Your task to perform on an android device: Search for Mexican restaurants on Maps Image 0: 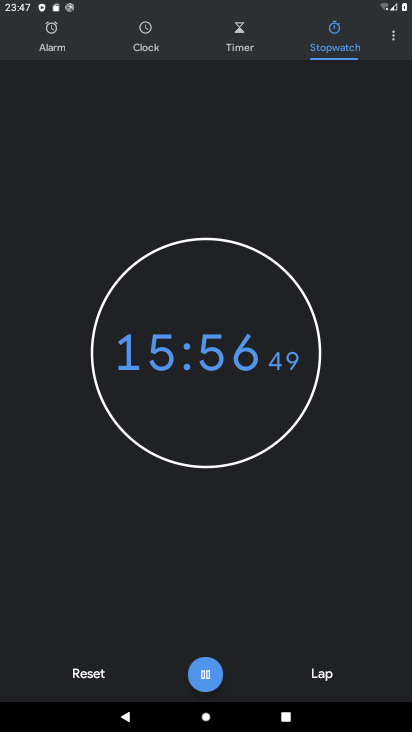
Step 0: press home button
Your task to perform on an android device: Search for Mexican restaurants on Maps Image 1: 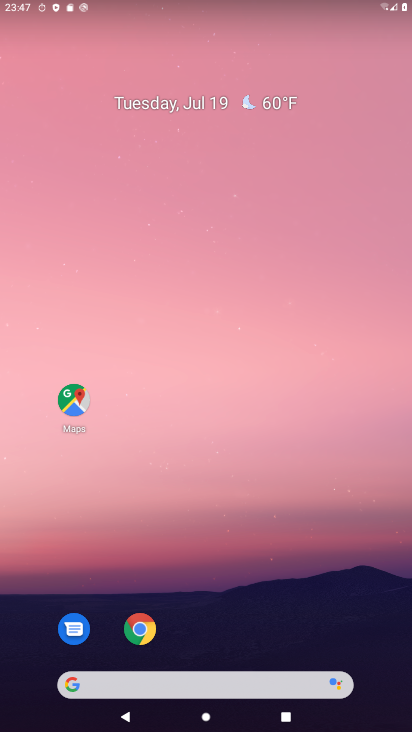
Step 1: click (67, 401)
Your task to perform on an android device: Search for Mexican restaurants on Maps Image 2: 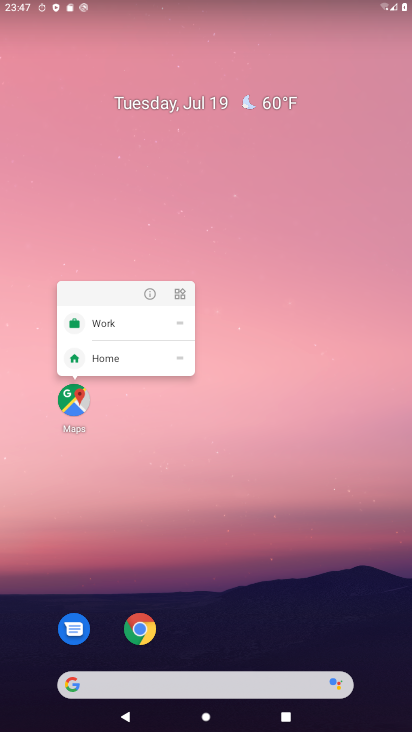
Step 2: click (74, 402)
Your task to perform on an android device: Search for Mexican restaurants on Maps Image 3: 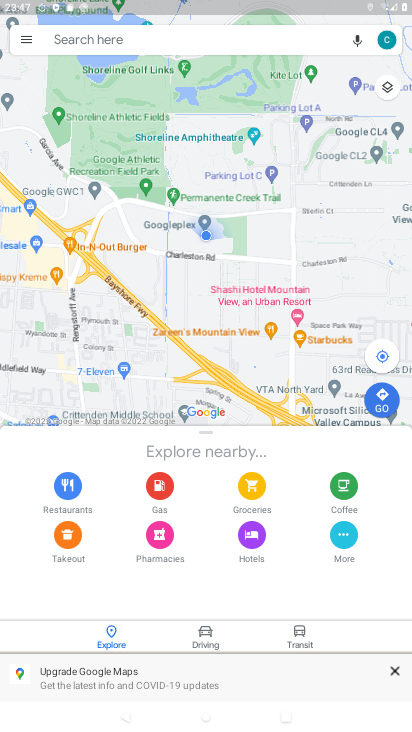
Step 3: click (143, 30)
Your task to perform on an android device: Search for Mexican restaurants on Maps Image 4: 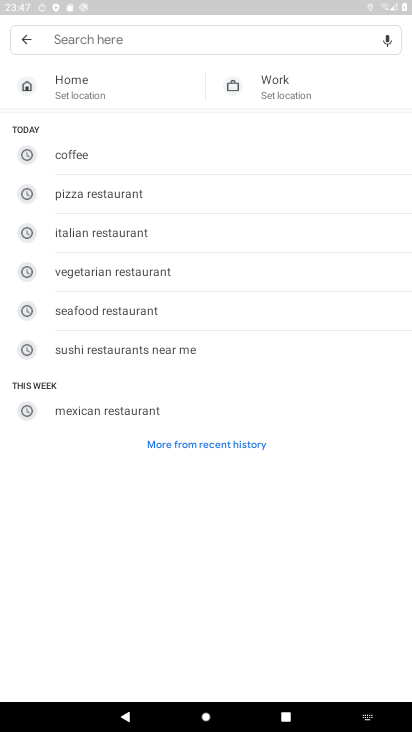
Step 4: type "mexican restaurants"
Your task to perform on an android device: Search for Mexican restaurants on Maps Image 5: 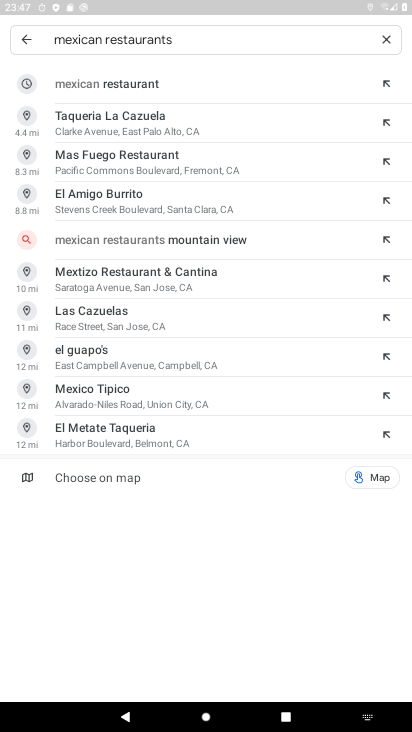
Step 5: click (266, 78)
Your task to perform on an android device: Search for Mexican restaurants on Maps Image 6: 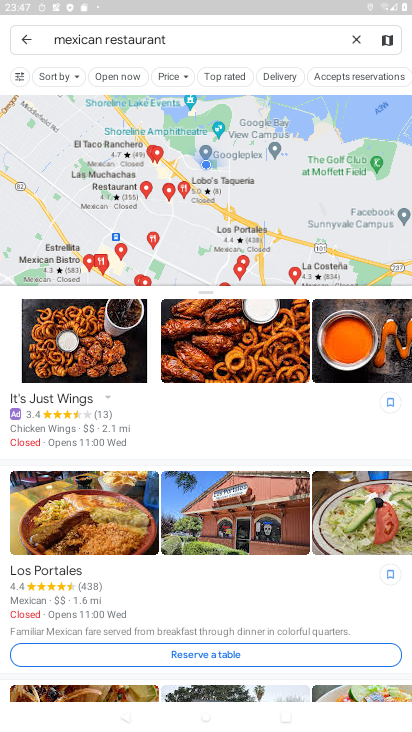
Step 6: task complete